Your task to perform on an android device: turn notification dots off Image 0: 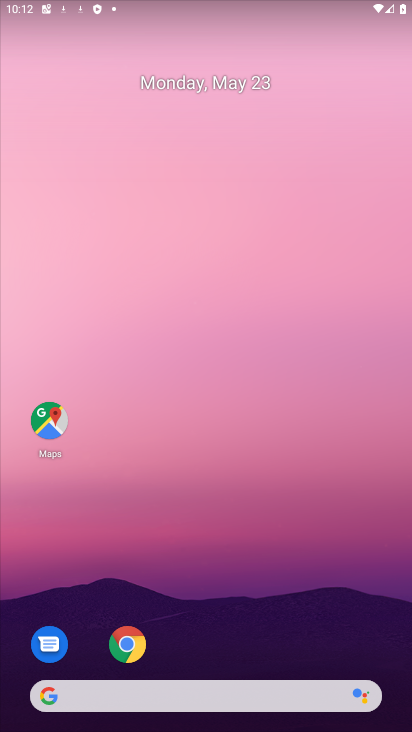
Step 0: drag from (232, 705) to (211, 263)
Your task to perform on an android device: turn notification dots off Image 1: 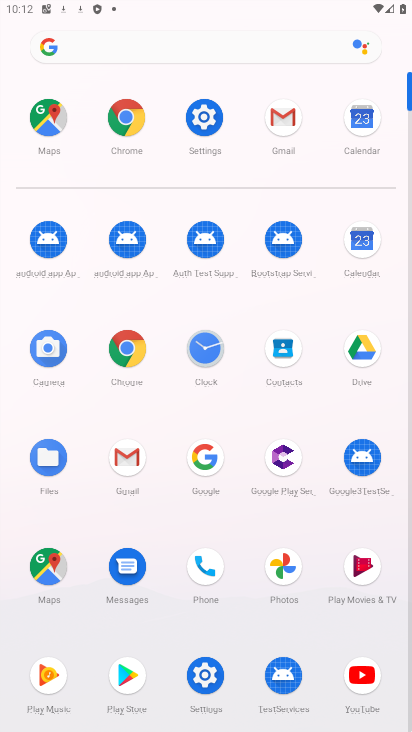
Step 1: click (213, 128)
Your task to perform on an android device: turn notification dots off Image 2: 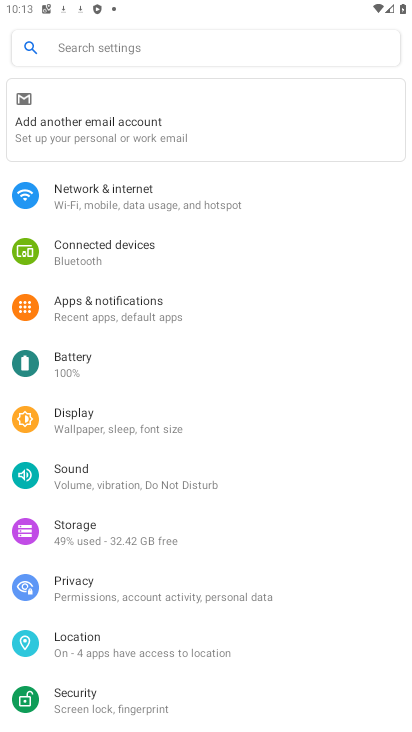
Step 2: click (159, 43)
Your task to perform on an android device: turn notification dots off Image 3: 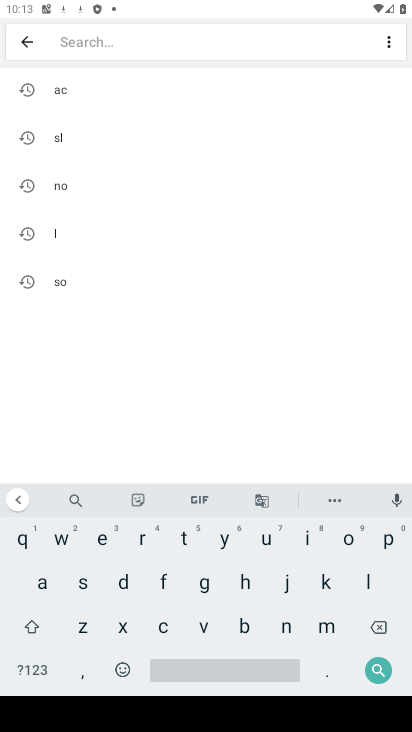
Step 3: click (119, 581)
Your task to perform on an android device: turn notification dots off Image 4: 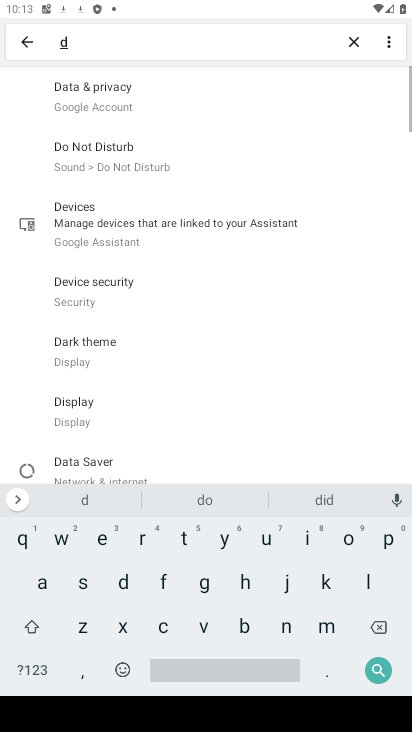
Step 4: click (352, 533)
Your task to perform on an android device: turn notification dots off Image 5: 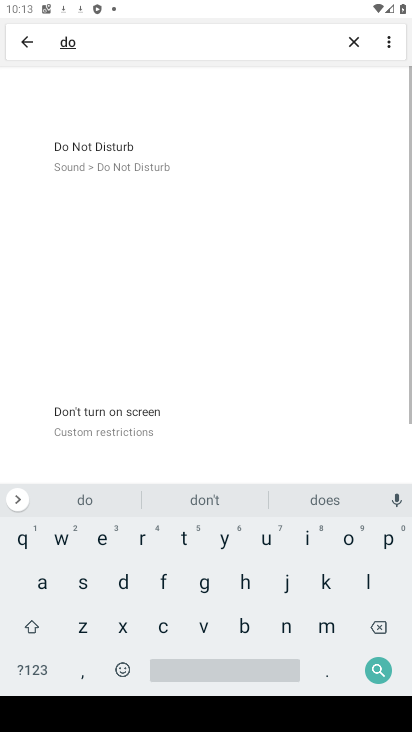
Step 5: click (175, 532)
Your task to perform on an android device: turn notification dots off Image 6: 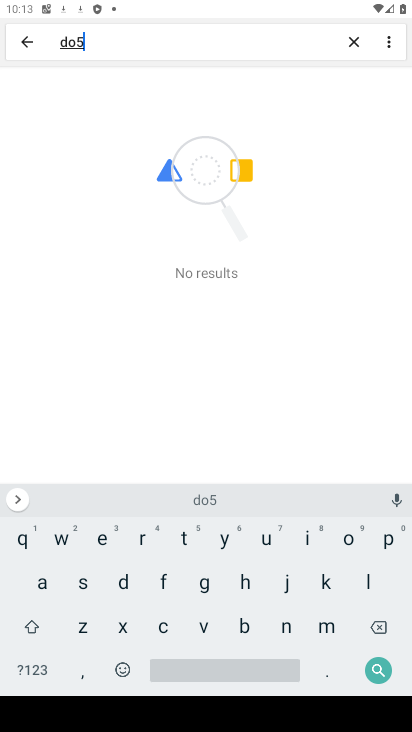
Step 6: click (368, 630)
Your task to perform on an android device: turn notification dots off Image 7: 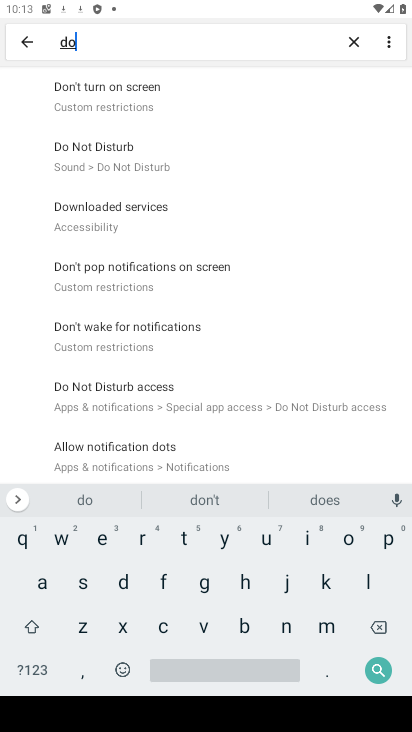
Step 7: click (185, 542)
Your task to perform on an android device: turn notification dots off Image 8: 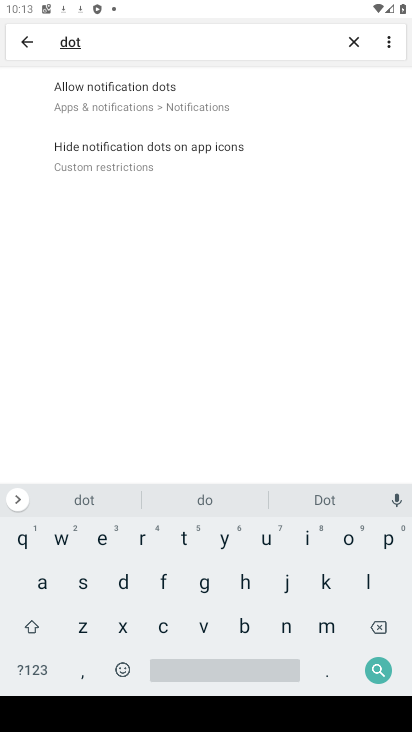
Step 8: click (145, 101)
Your task to perform on an android device: turn notification dots off Image 9: 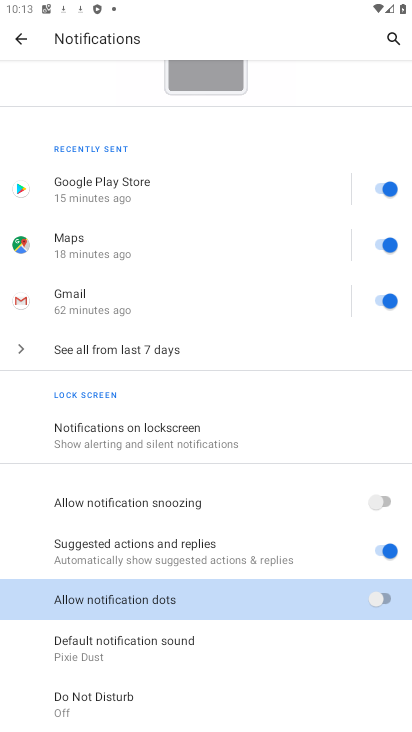
Step 9: click (306, 605)
Your task to perform on an android device: turn notification dots off Image 10: 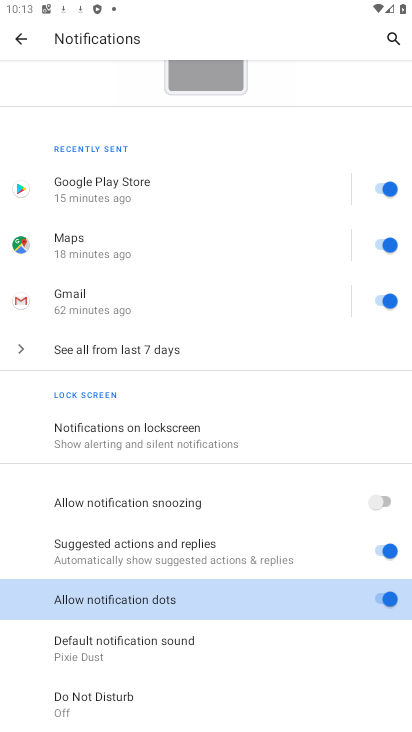
Step 10: click (306, 605)
Your task to perform on an android device: turn notification dots off Image 11: 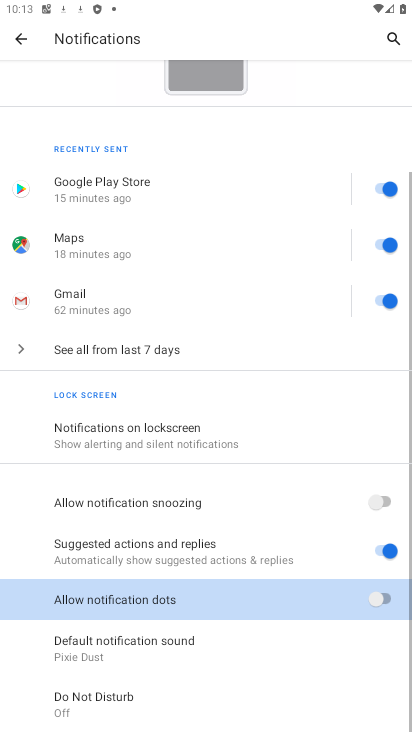
Step 11: task complete